Your task to perform on an android device: turn off location Image 0: 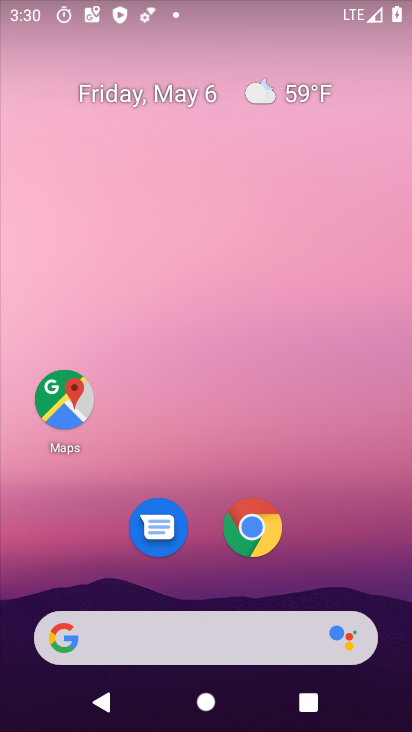
Step 0: drag from (305, 579) to (291, 33)
Your task to perform on an android device: turn off location Image 1: 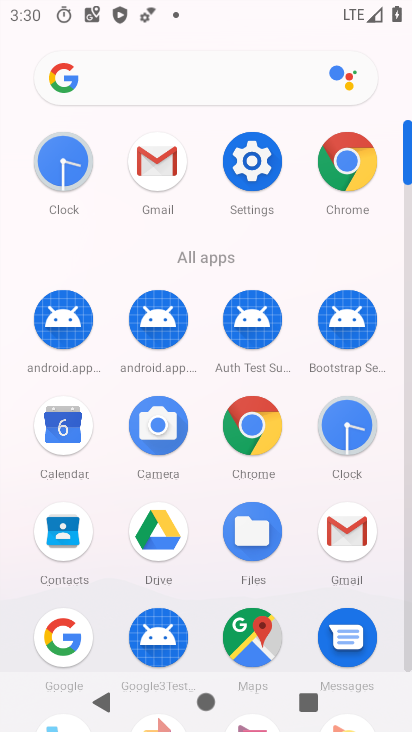
Step 1: click (257, 162)
Your task to perform on an android device: turn off location Image 2: 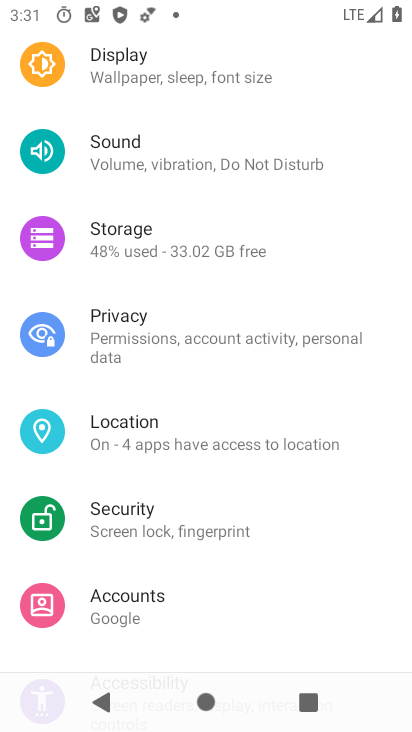
Step 2: click (116, 441)
Your task to perform on an android device: turn off location Image 3: 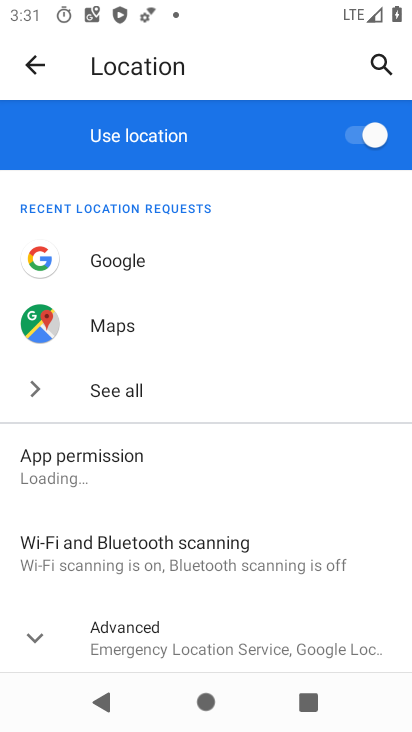
Step 3: click (351, 131)
Your task to perform on an android device: turn off location Image 4: 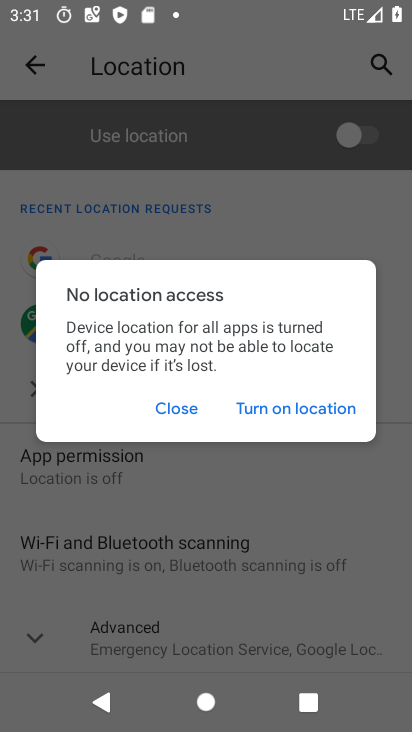
Step 4: task complete